Your task to perform on an android device: add a contact in the contacts app Image 0: 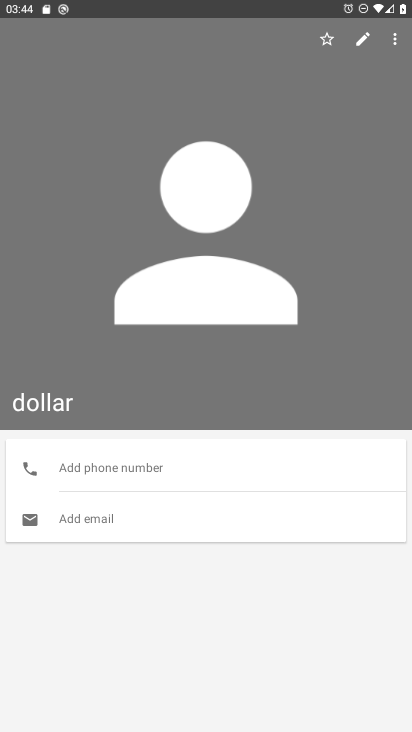
Step 0: press home button
Your task to perform on an android device: add a contact in the contacts app Image 1: 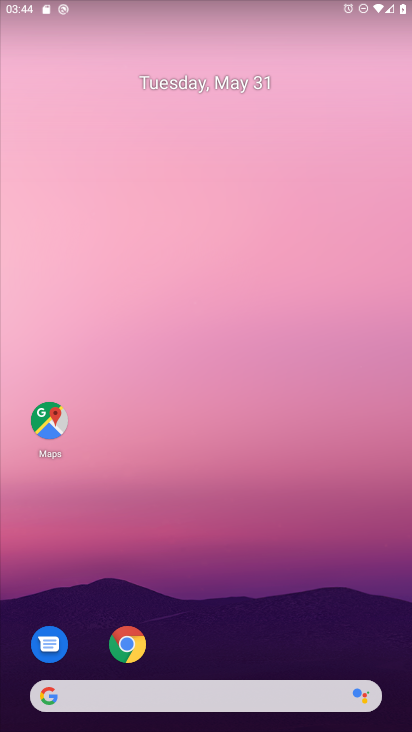
Step 1: drag from (271, 595) to (175, 143)
Your task to perform on an android device: add a contact in the contacts app Image 2: 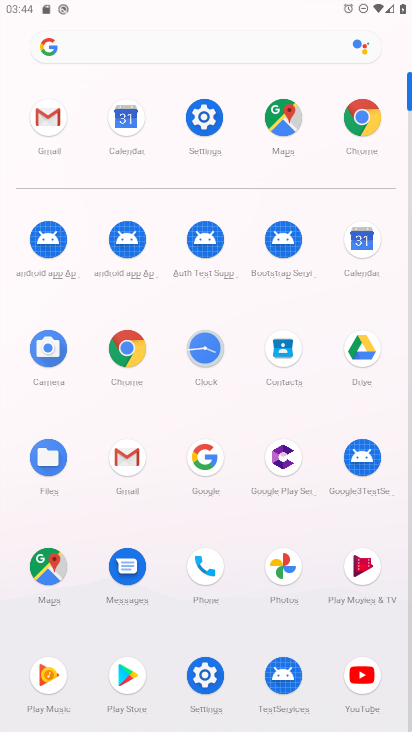
Step 2: click (271, 362)
Your task to perform on an android device: add a contact in the contacts app Image 3: 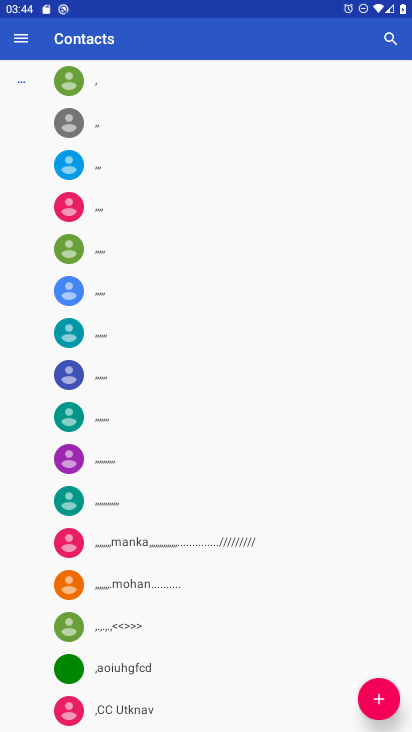
Step 3: click (373, 709)
Your task to perform on an android device: add a contact in the contacts app Image 4: 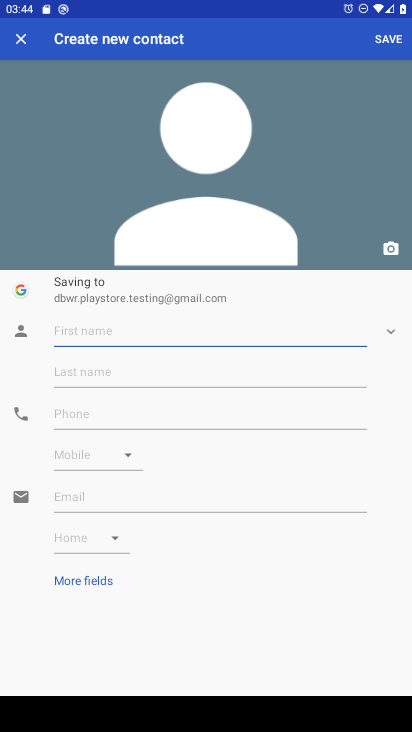
Step 4: click (185, 332)
Your task to perform on an android device: add a contact in the contacts app Image 5: 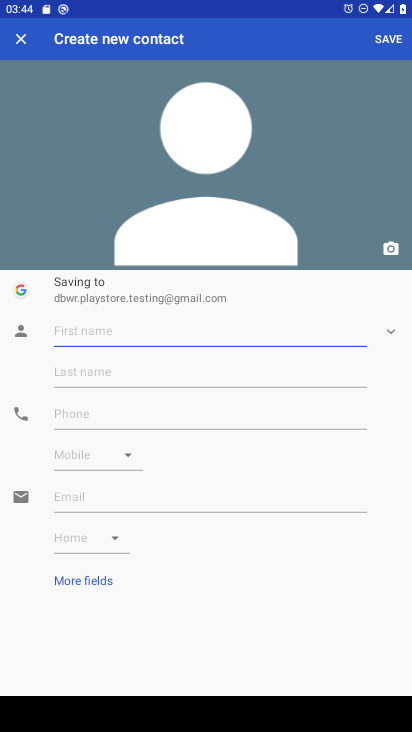
Step 5: type "mumbai"
Your task to perform on an android device: add a contact in the contacts app Image 6: 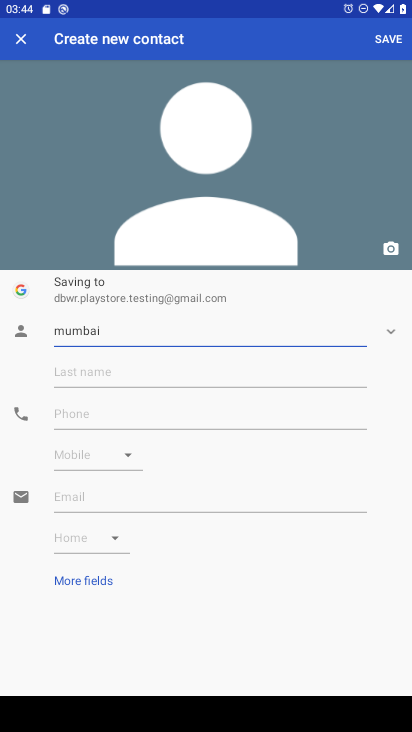
Step 6: click (379, 41)
Your task to perform on an android device: add a contact in the contacts app Image 7: 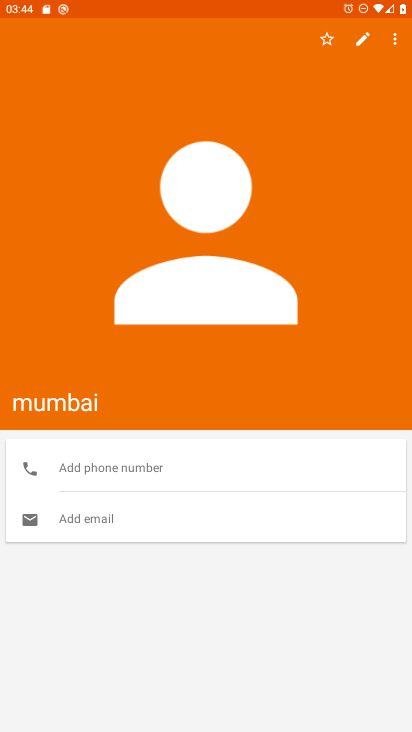
Step 7: task complete